Your task to perform on an android device: open a new tab in the chrome app Image 0: 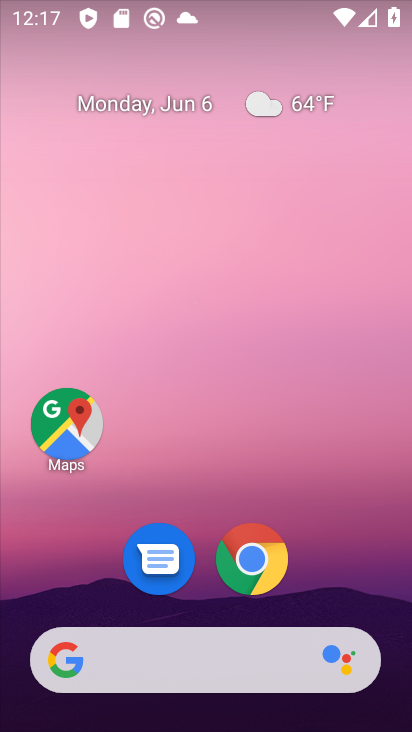
Step 0: drag from (267, 673) to (180, 203)
Your task to perform on an android device: open a new tab in the chrome app Image 1: 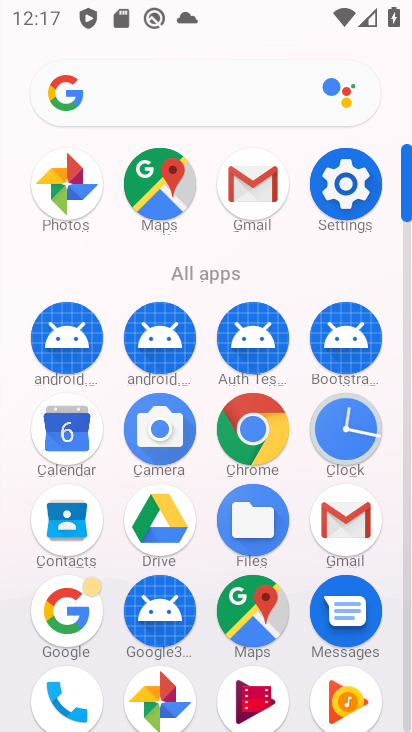
Step 1: click (251, 463)
Your task to perform on an android device: open a new tab in the chrome app Image 2: 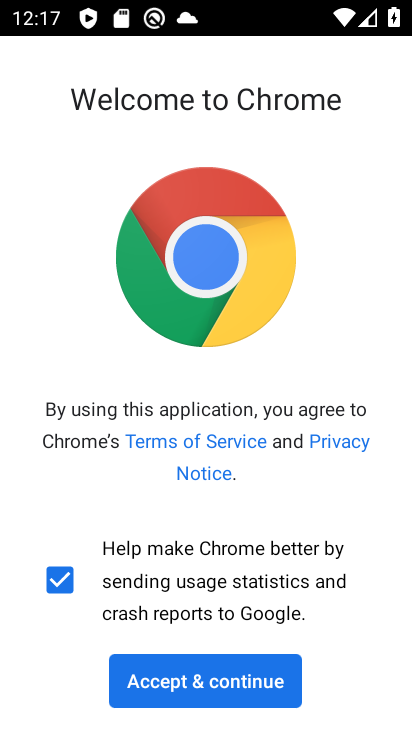
Step 2: click (279, 695)
Your task to perform on an android device: open a new tab in the chrome app Image 3: 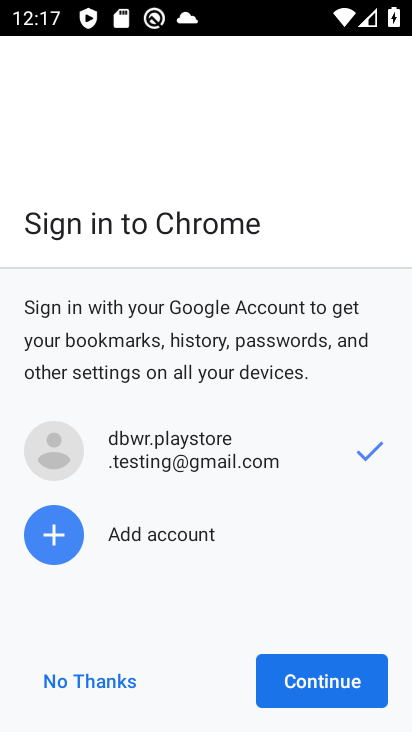
Step 3: click (308, 691)
Your task to perform on an android device: open a new tab in the chrome app Image 4: 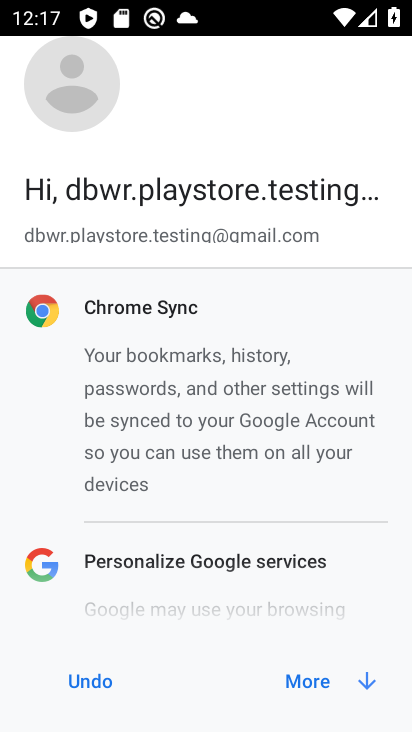
Step 4: click (365, 654)
Your task to perform on an android device: open a new tab in the chrome app Image 5: 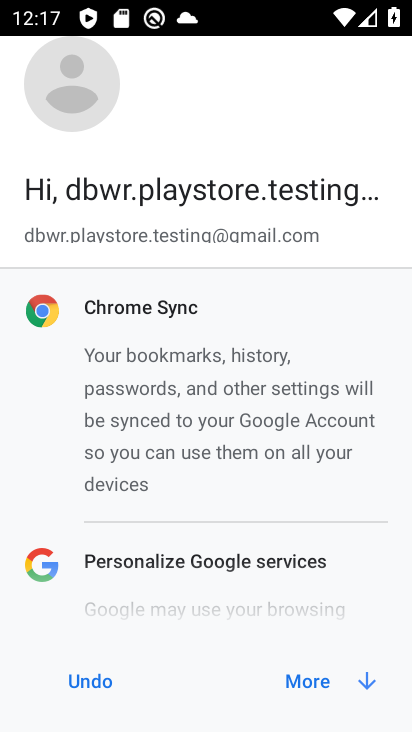
Step 5: click (374, 688)
Your task to perform on an android device: open a new tab in the chrome app Image 6: 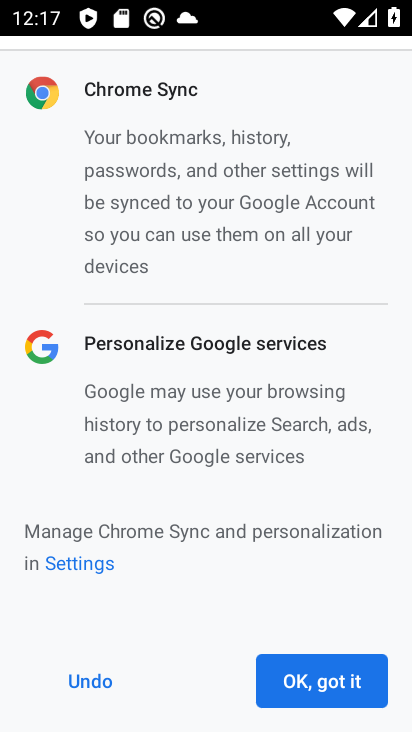
Step 6: click (363, 664)
Your task to perform on an android device: open a new tab in the chrome app Image 7: 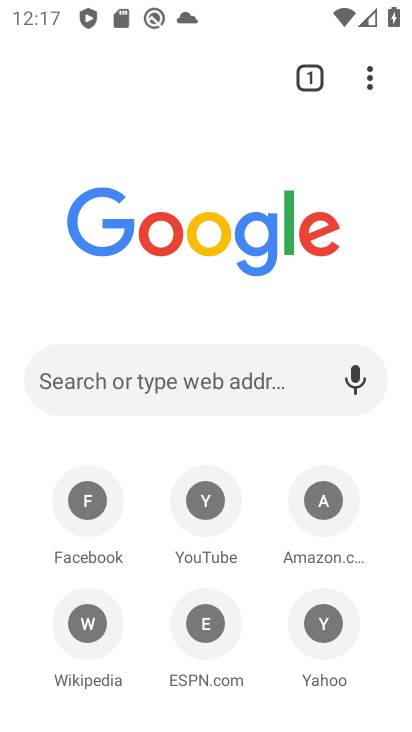
Step 7: click (365, 77)
Your task to perform on an android device: open a new tab in the chrome app Image 8: 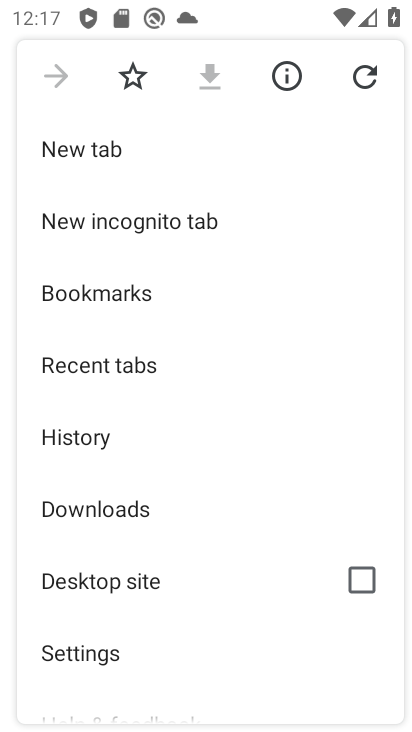
Step 8: click (88, 144)
Your task to perform on an android device: open a new tab in the chrome app Image 9: 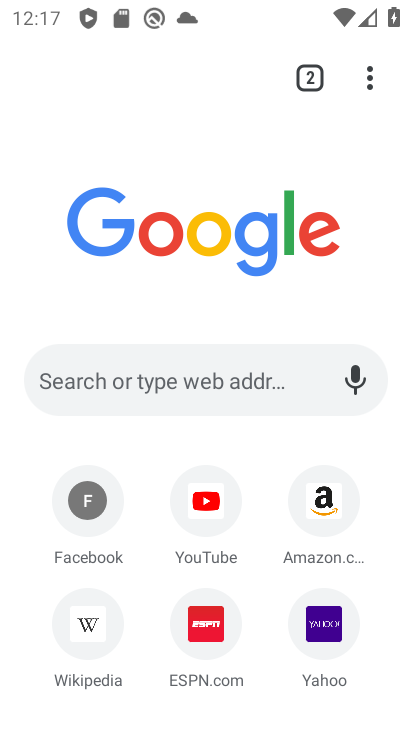
Step 9: task complete